Your task to perform on an android device: Turn off the flashlight Image 0: 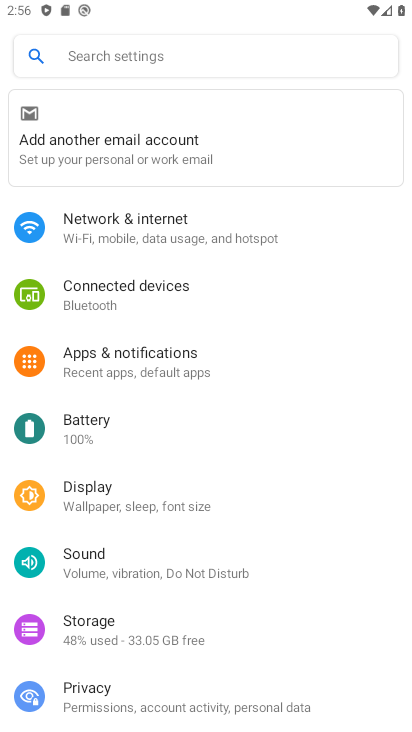
Step 0: task impossible